Your task to perform on an android device: turn off wifi Image 0: 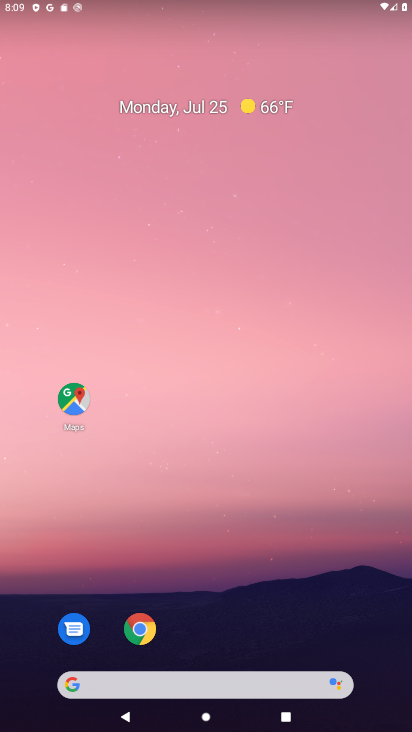
Step 0: drag from (150, 7) to (160, 446)
Your task to perform on an android device: turn off wifi Image 1: 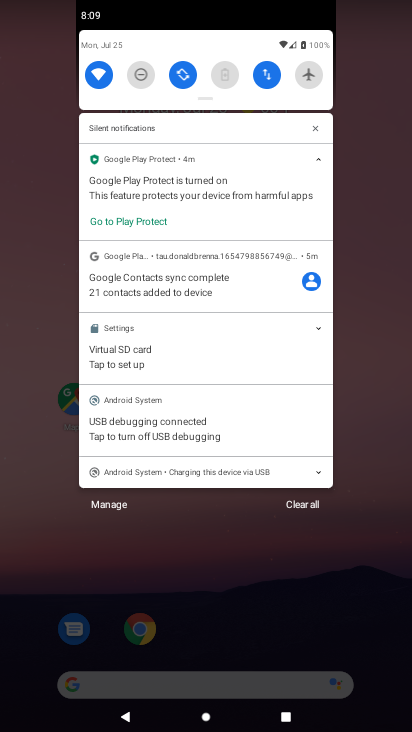
Step 1: click (99, 65)
Your task to perform on an android device: turn off wifi Image 2: 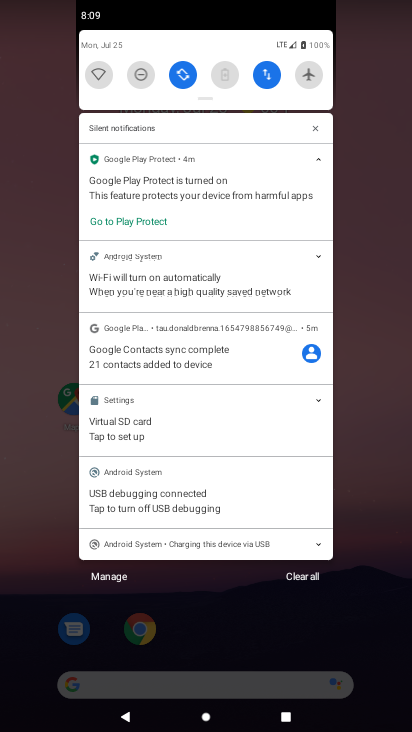
Step 2: task complete